Your task to perform on an android device: Open calendar and show me the first week of next month Image 0: 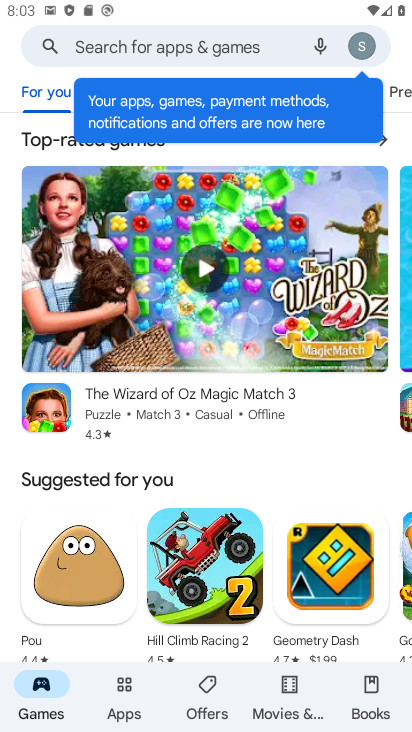
Step 0: press home button
Your task to perform on an android device: Open calendar and show me the first week of next month Image 1: 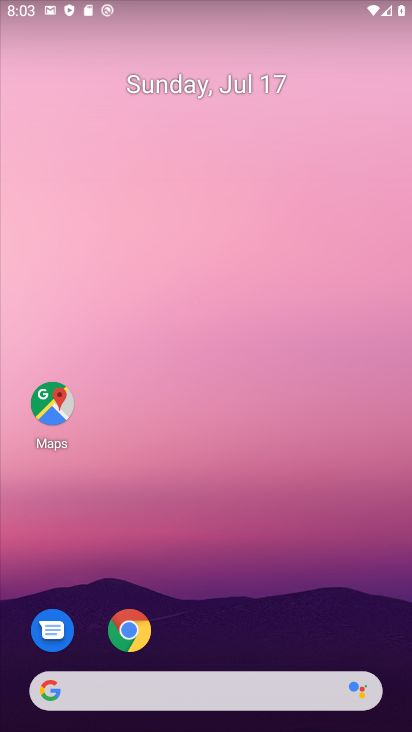
Step 1: drag from (235, 617) to (147, 56)
Your task to perform on an android device: Open calendar and show me the first week of next month Image 2: 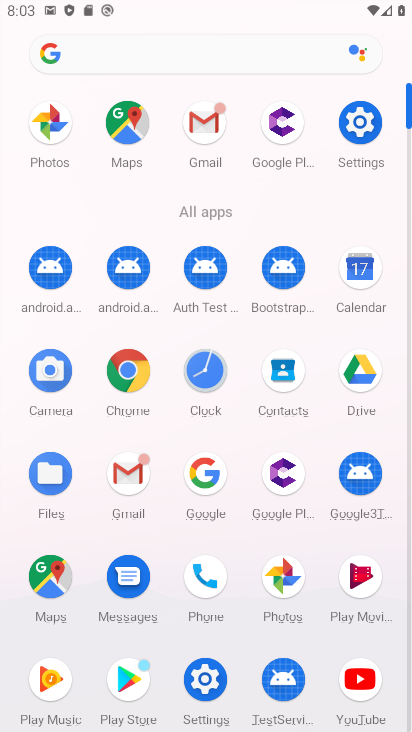
Step 2: click (346, 304)
Your task to perform on an android device: Open calendar and show me the first week of next month Image 3: 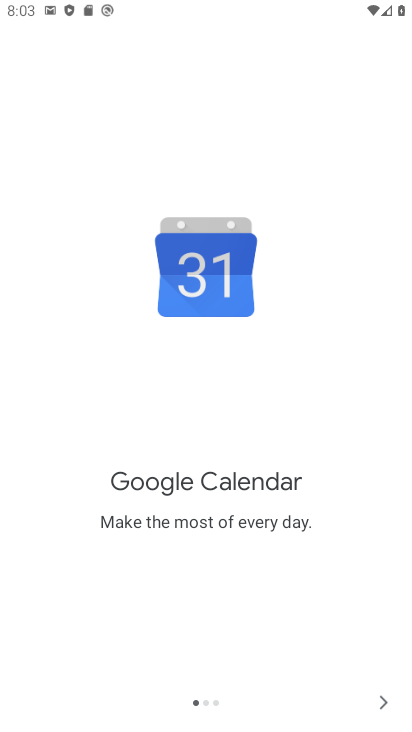
Step 3: click (377, 695)
Your task to perform on an android device: Open calendar and show me the first week of next month Image 4: 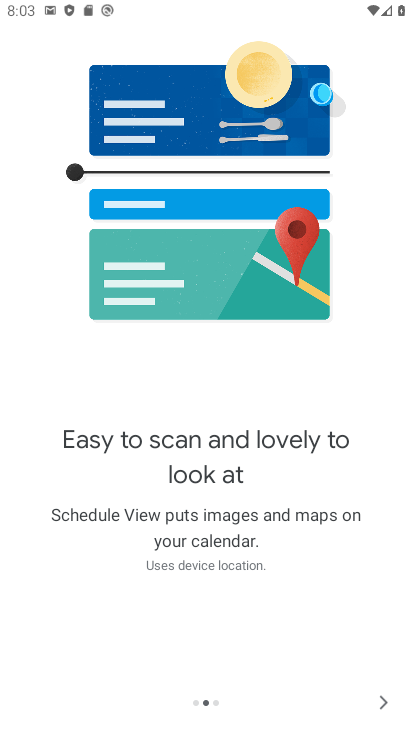
Step 4: click (379, 707)
Your task to perform on an android device: Open calendar and show me the first week of next month Image 5: 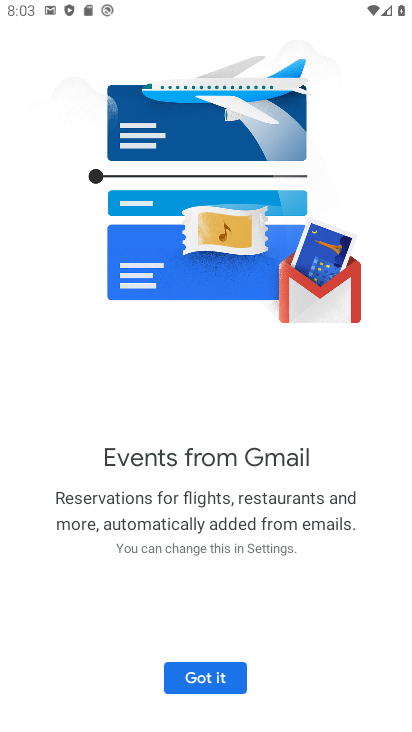
Step 5: click (189, 678)
Your task to perform on an android device: Open calendar and show me the first week of next month Image 6: 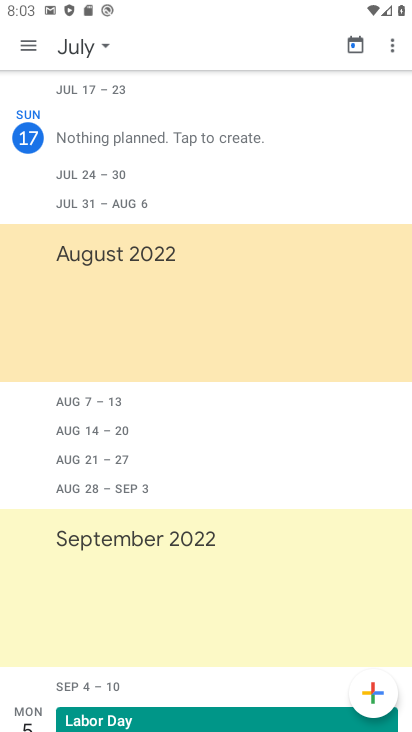
Step 6: click (16, 45)
Your task to perform on an android device: Open calendar and show me the first week of next month Image 7: 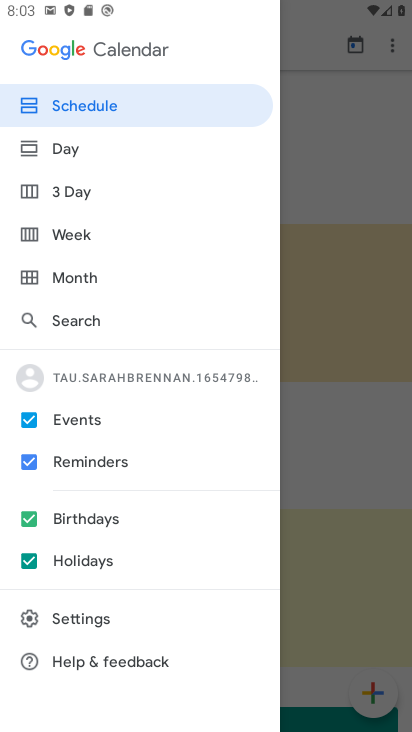
Step 7: click (84, 239)
Your task to perform on an android device: Open calendar and show me the first week of next month Image 8: 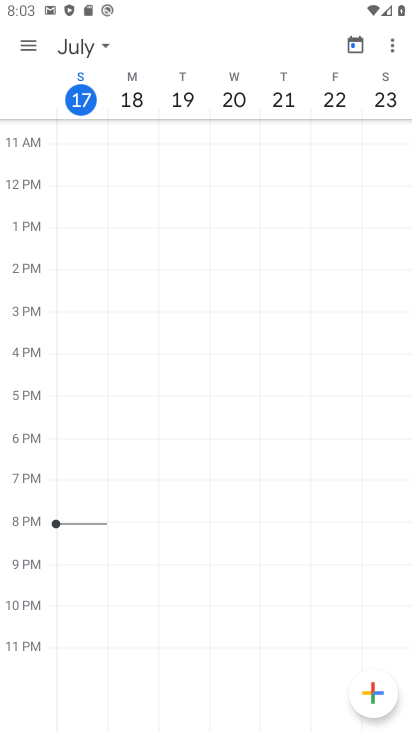
Step 8: task complete